Your task to perform on an android device: install app "Google Sheets" Image 0: 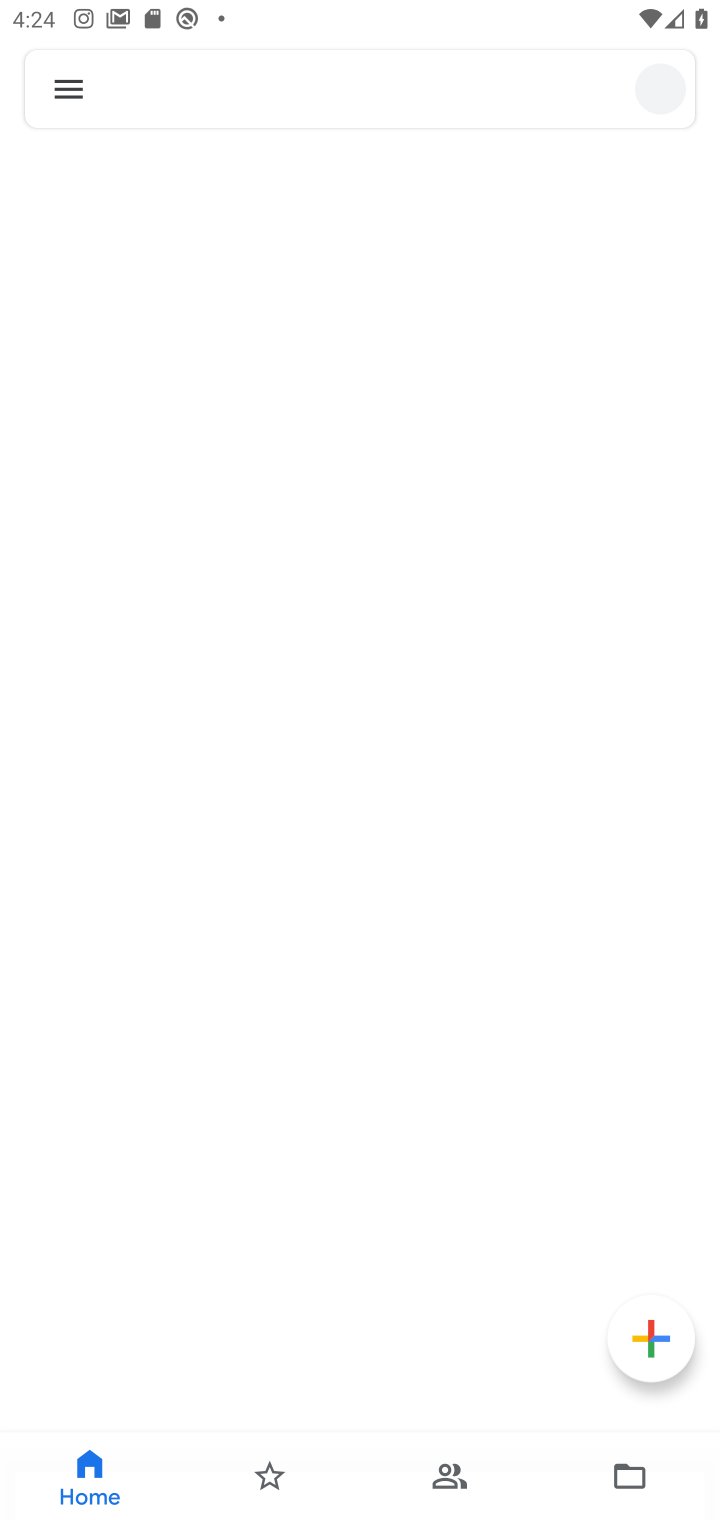
Step 0: press home button
Your task to perform on an android device: install app "Google Sheets" Image 1: 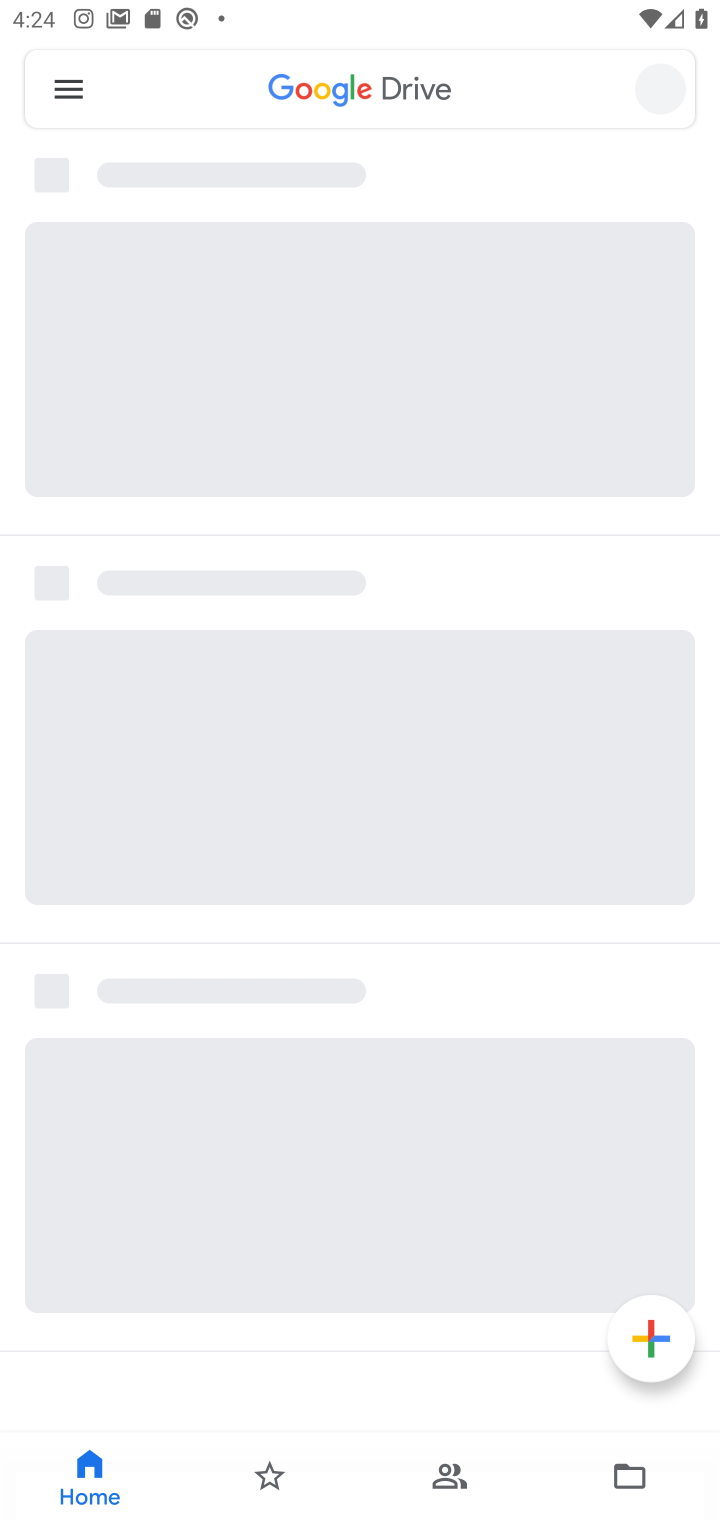
Step 1: press home button
Your task to perform on an android device: install app "Google Sheets" Image 2: 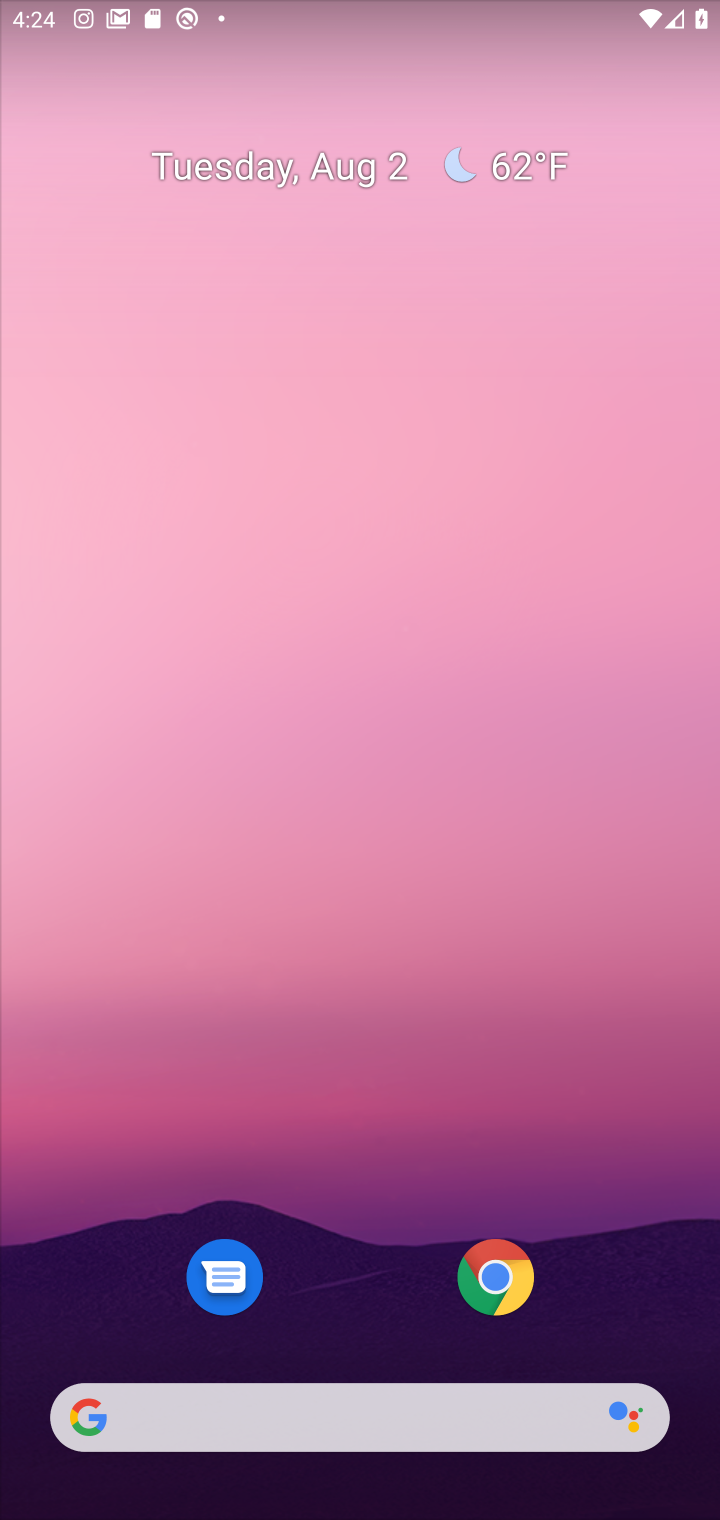
Step 2: drag from (554, 973) to (547, 2)
Your task to perform on an android device: install app "Google Sheets" Image 3: 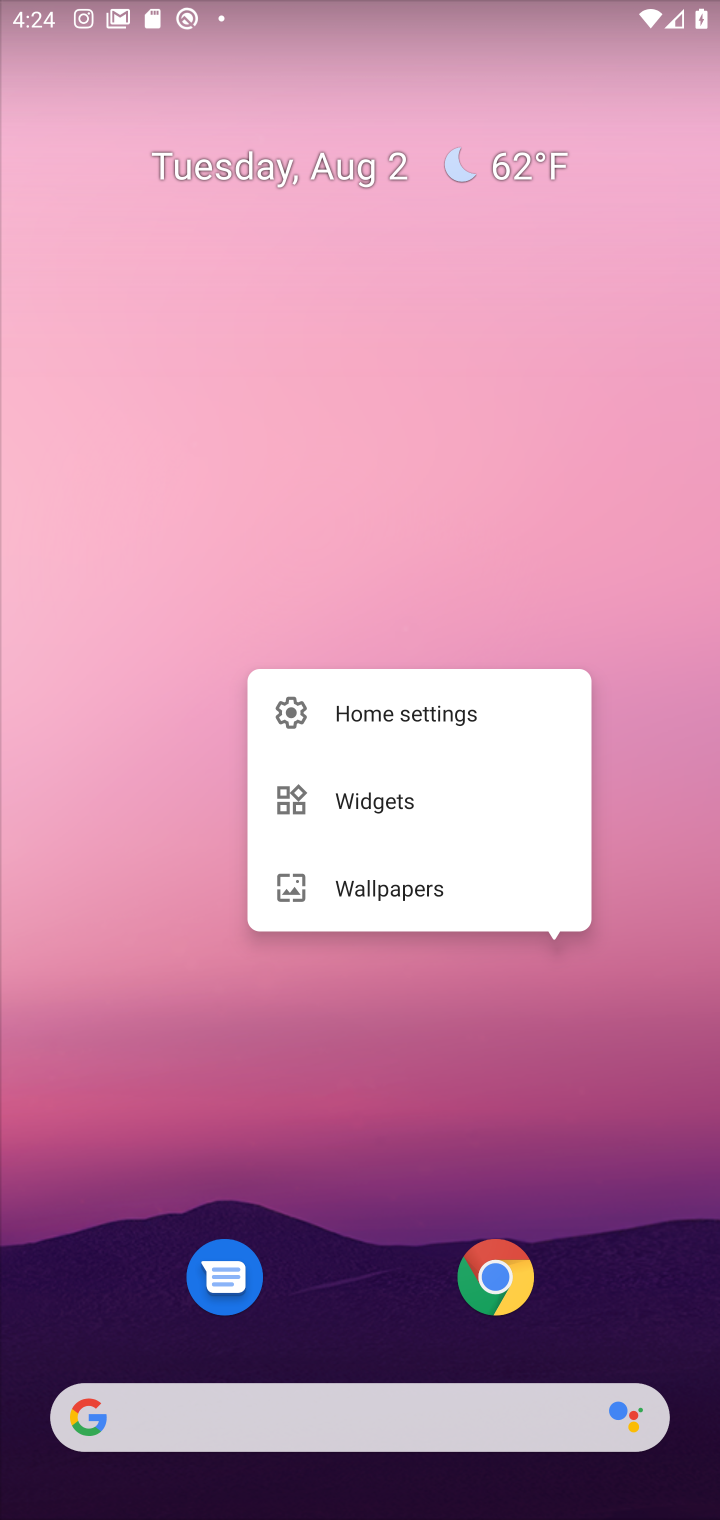
Step 3: click (483, 548)
Your task to perform on an android device: install app "Google Sheets" Image 4: 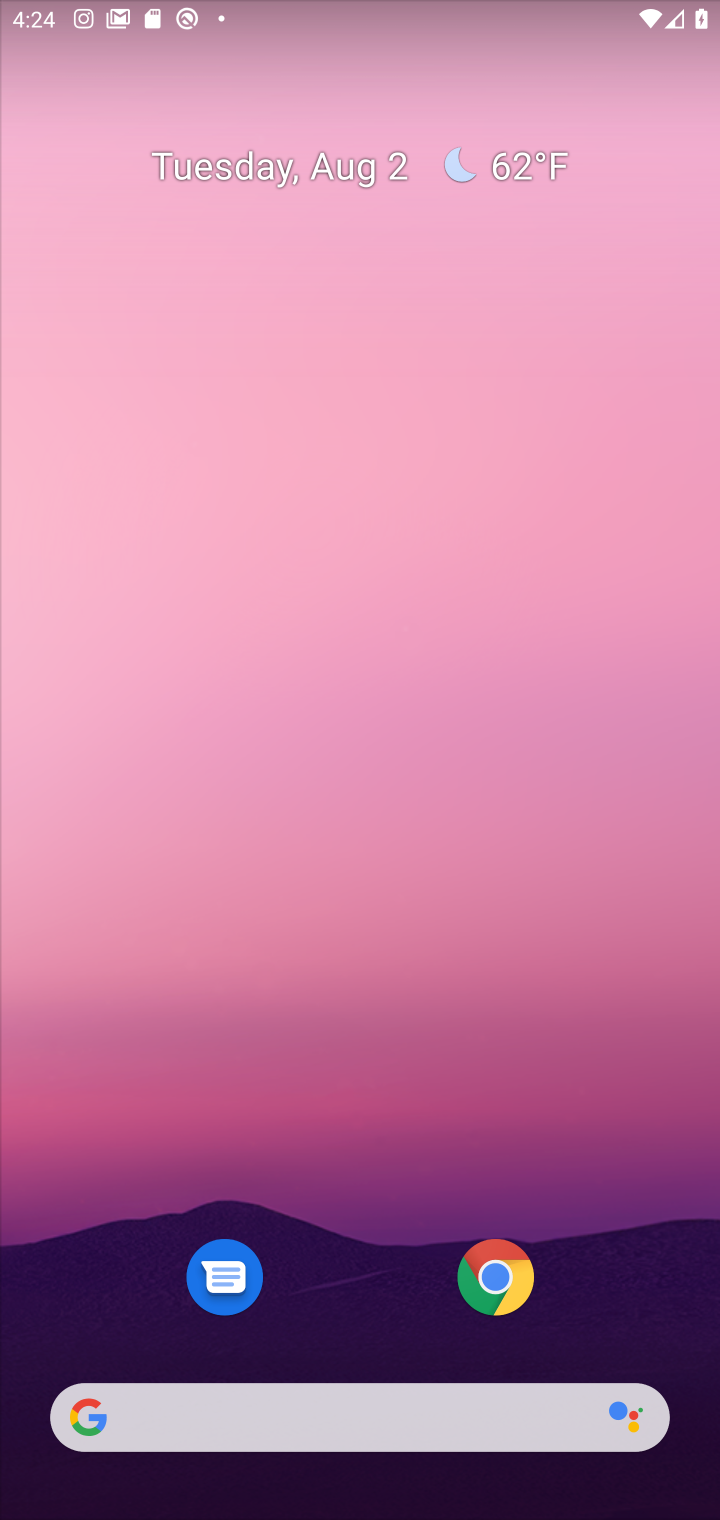
Step 4: drag from (513, 947) to (478, 0)
Your task to perform on an android device: install app "Google Sheets" Image 5: 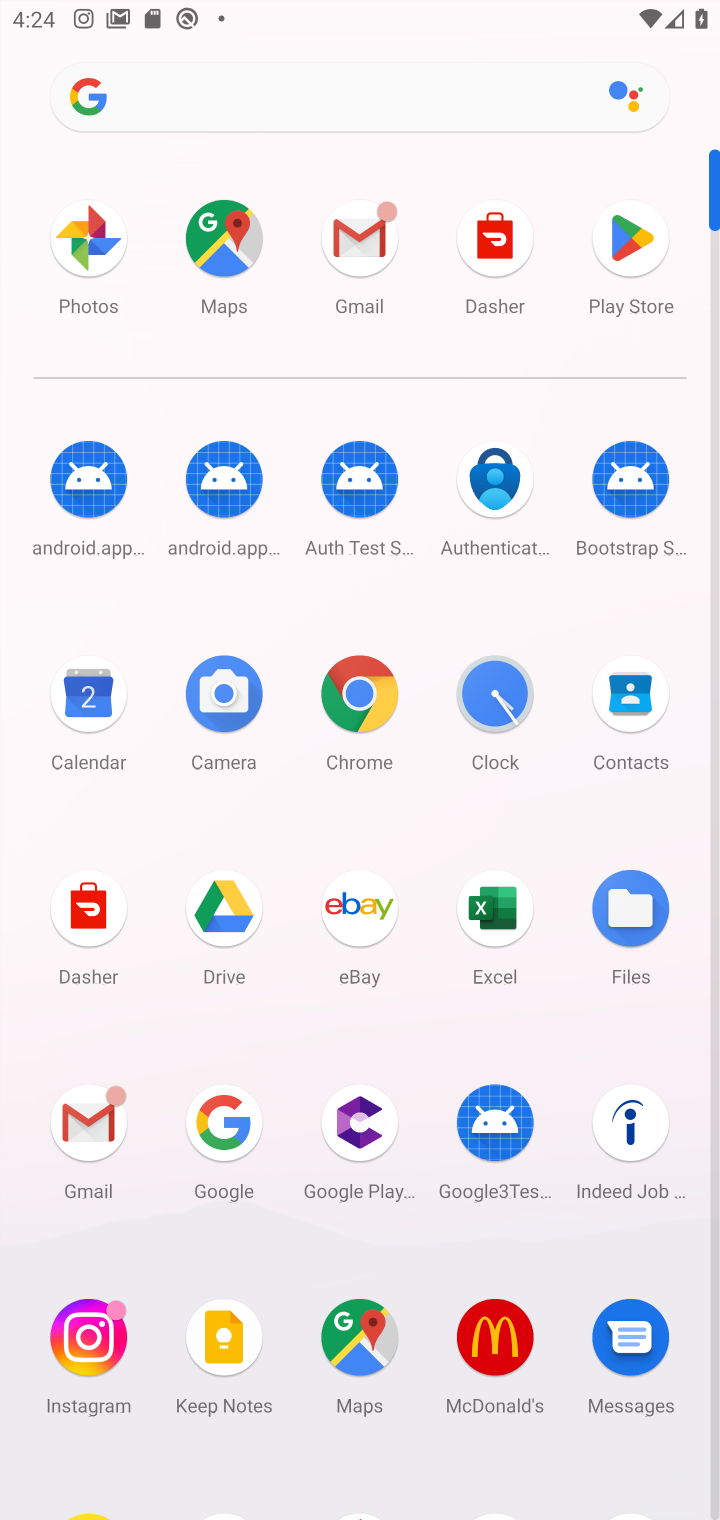
Step 5: drag from (420, 975) to (436, 387)
Your task to perform on an android device: install app "Google Sheets" Image 6: 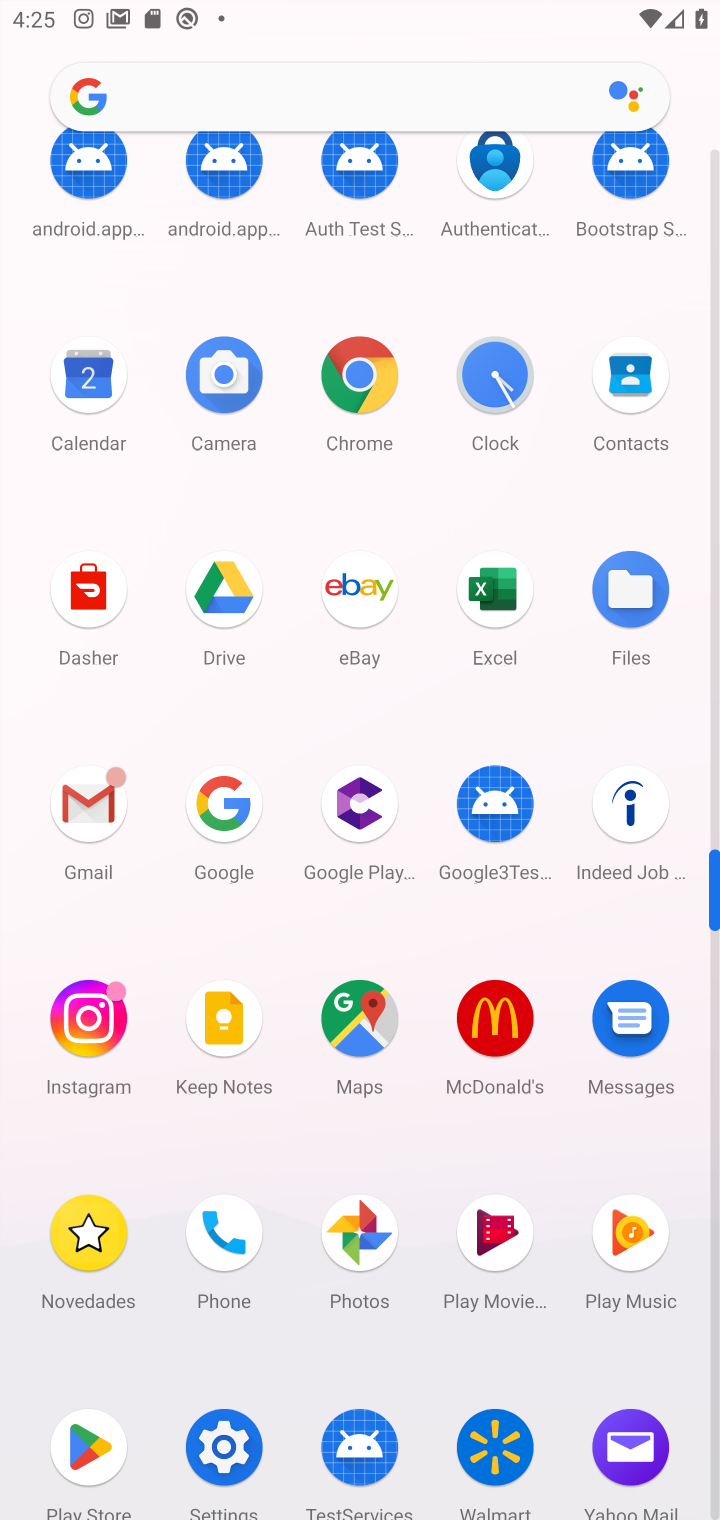
Step 6: click (66, 1430)
Your task to perform on an android device: install app "Google Sheets" Image 7: 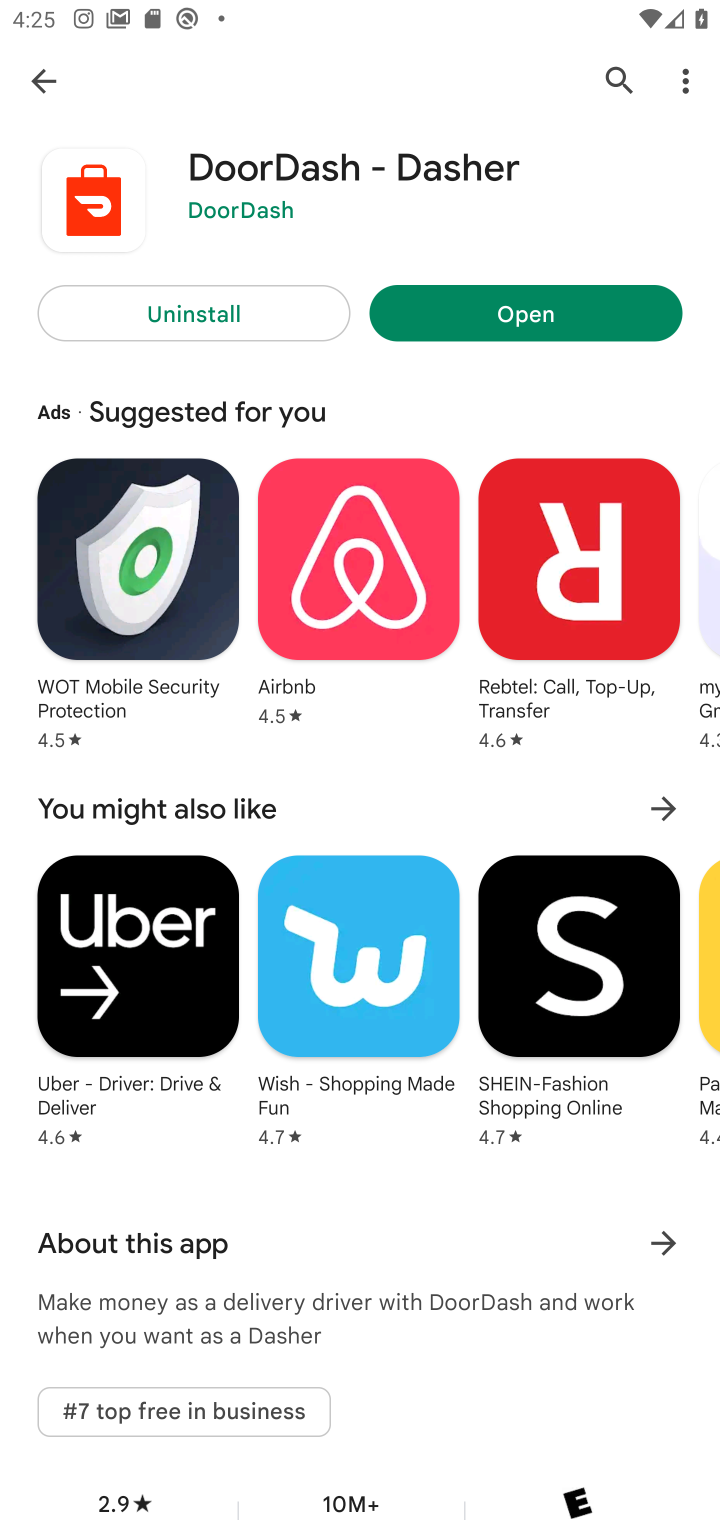
Step 7: click (632, 54)
Your task to perform on an android device: install app "Google Sheets" Image 8: 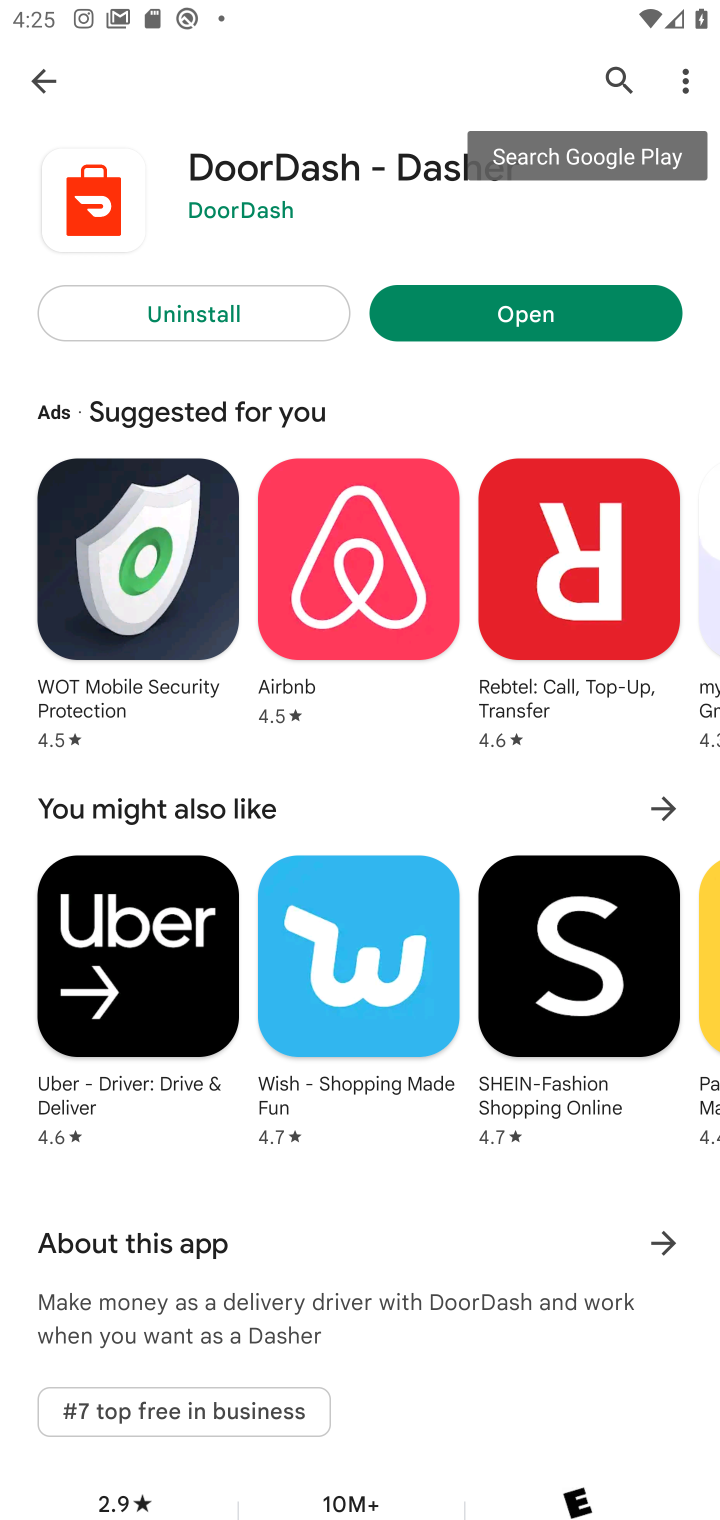
Step 8: click (612, 71)
Your task to perform on an android device: install app "Google Sheets" Image 9: 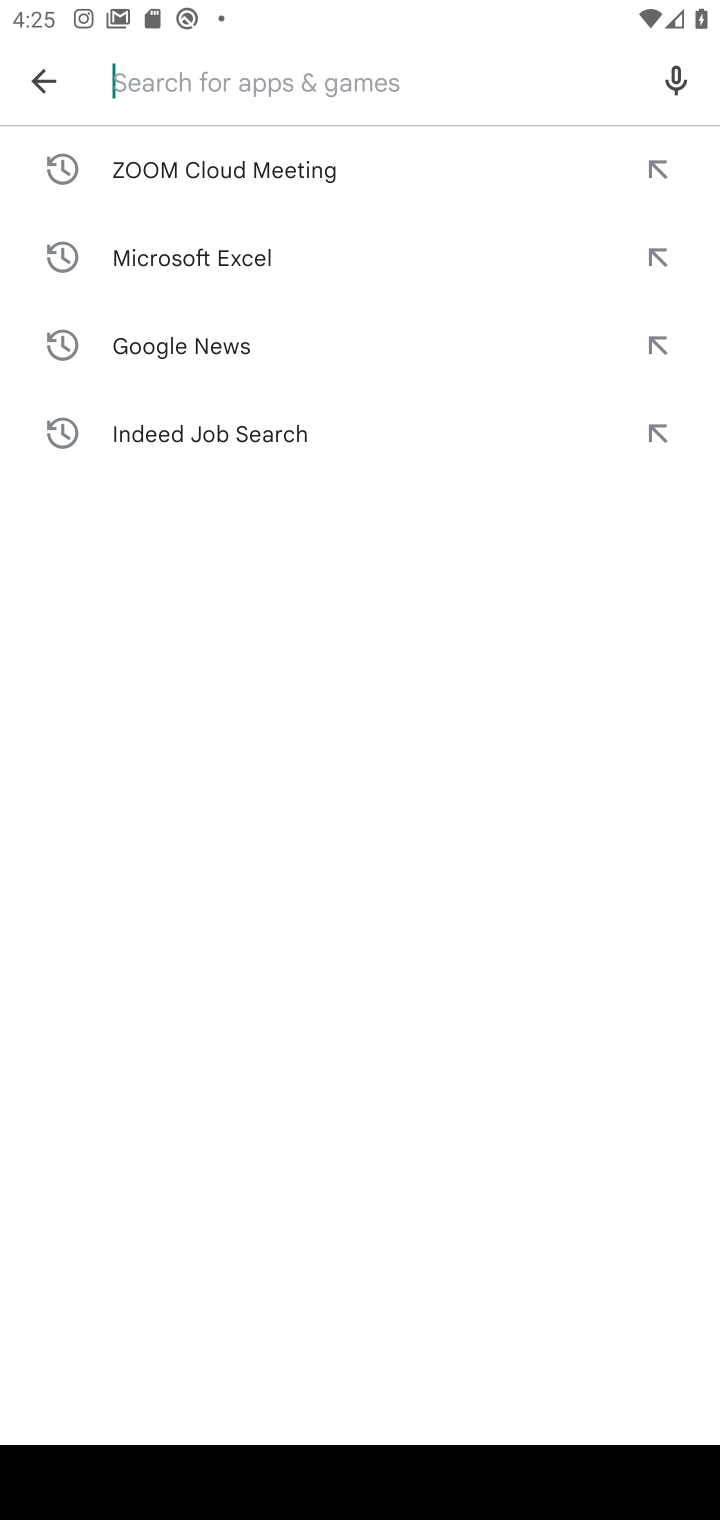
Step 9: type "Google Sheet"
Your task to perform on an android device: install app "Google Sheets" Image 10: 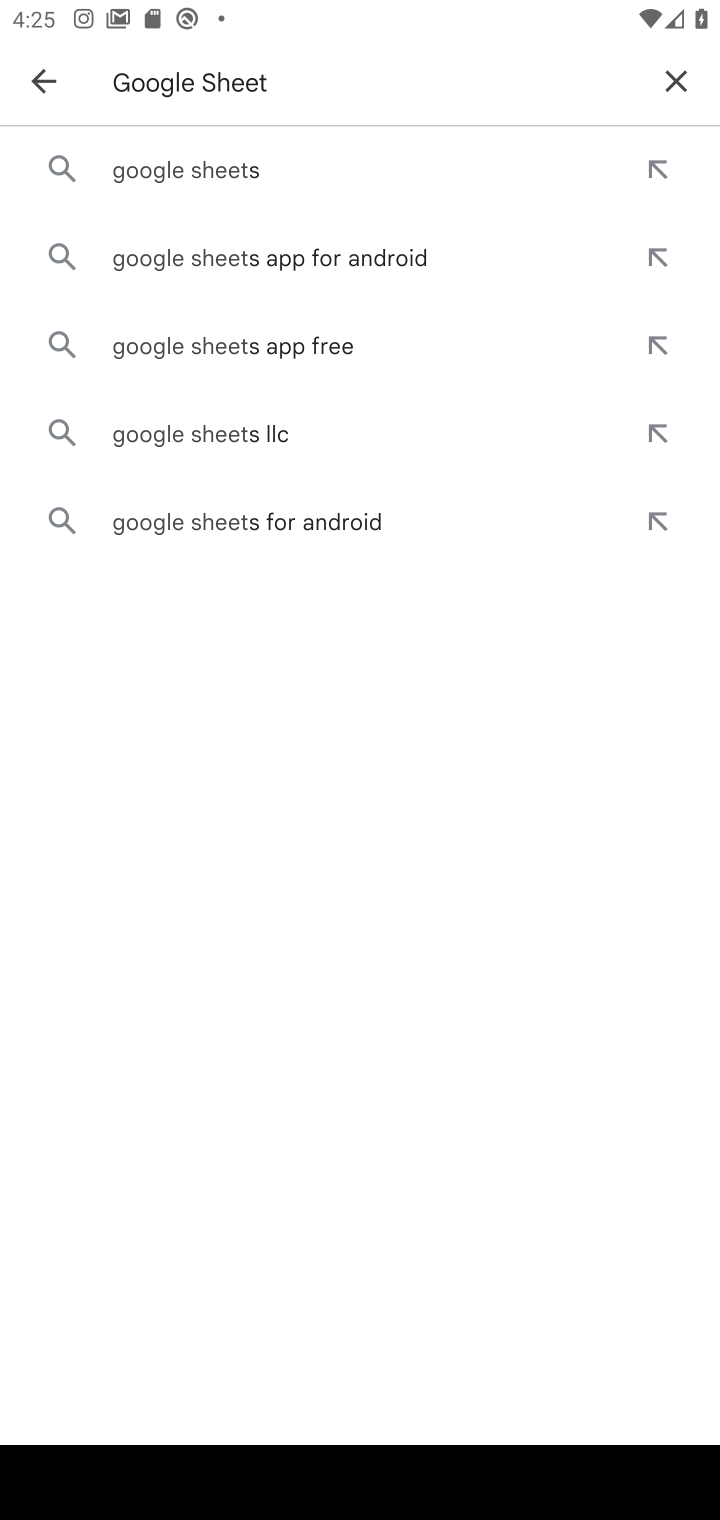
Step 10: type "s"
Your task to perform on an android device: install app "Google Sheets" Image 11: 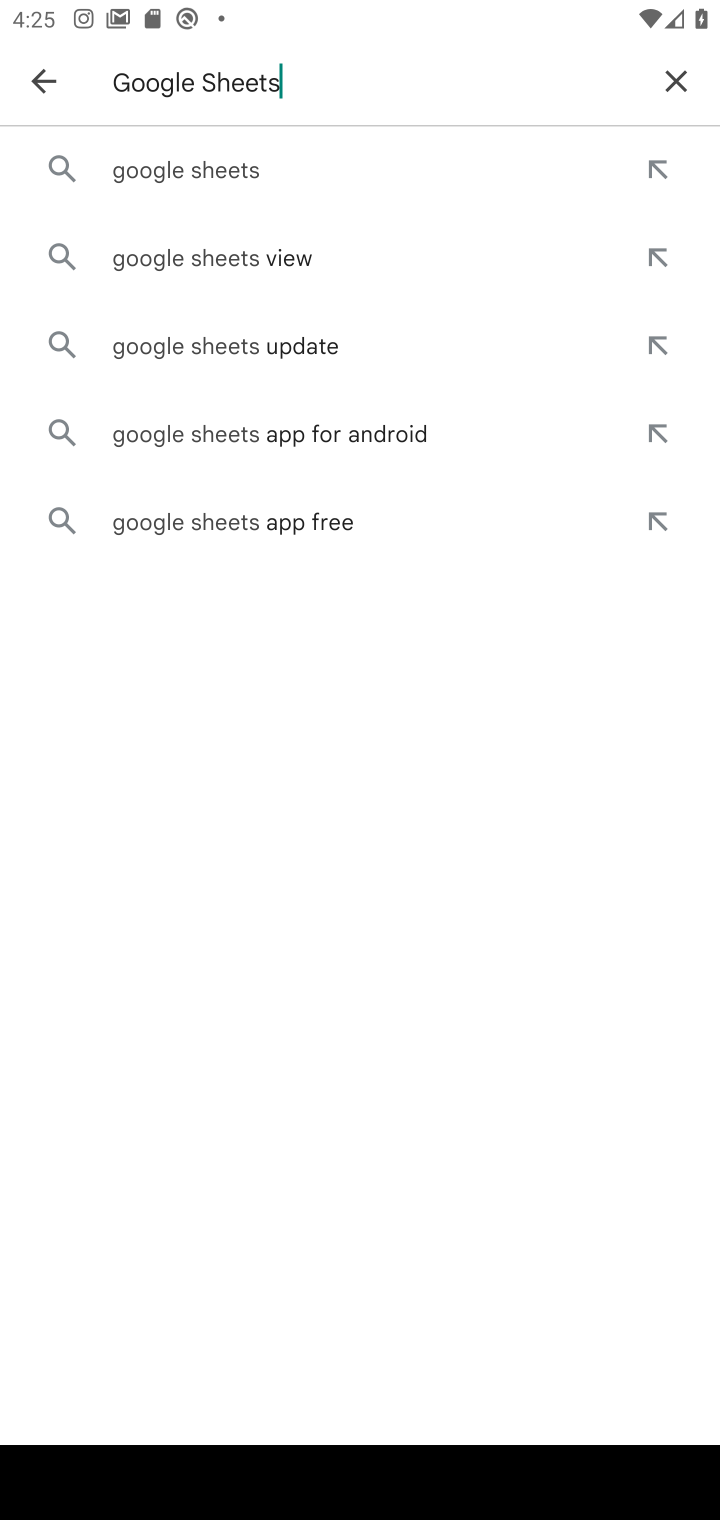
Step 11: click (285, 157)
Your task to perform on an android device: install app "Google Sheets" Image 12: 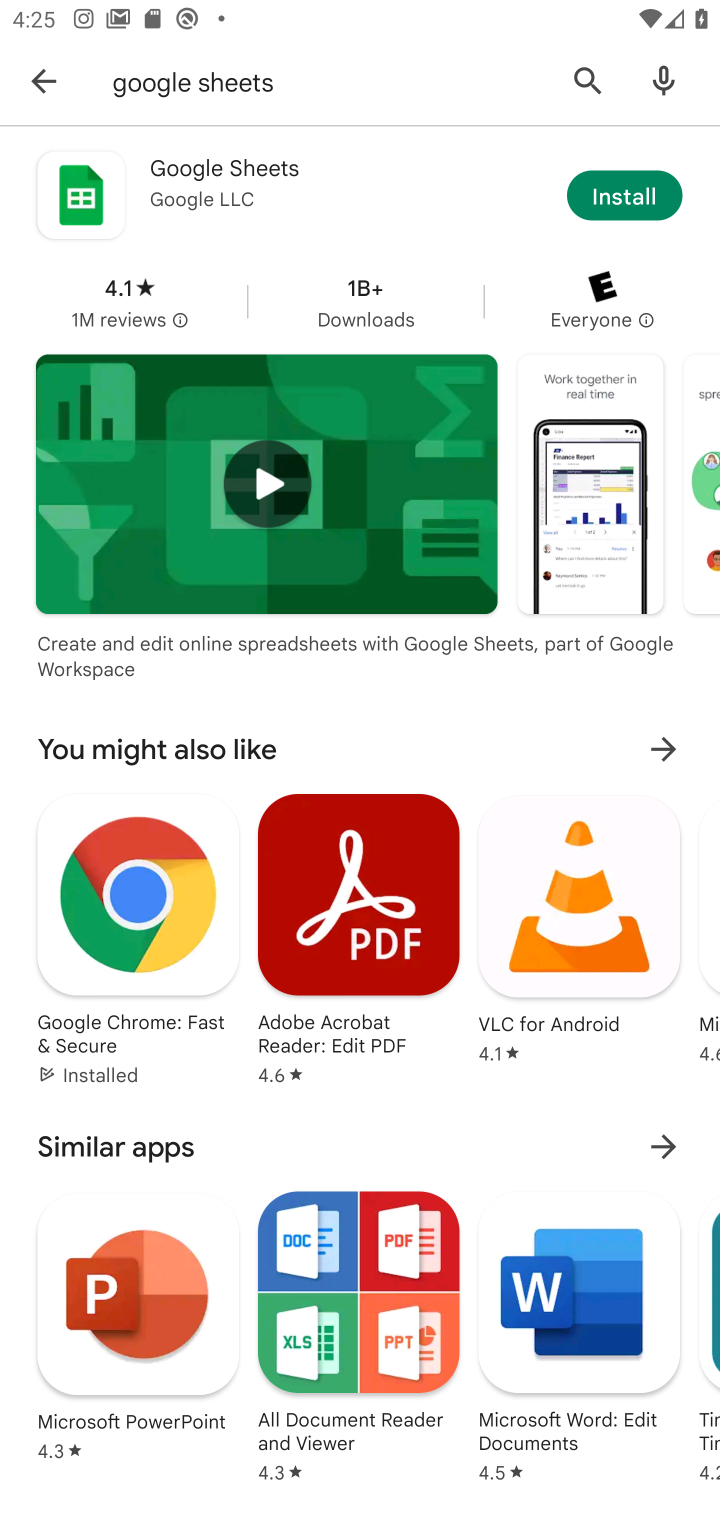
Step 12: click (608, 212)
Your task to perform on an android device: install app "Google Sheets" Image 13: 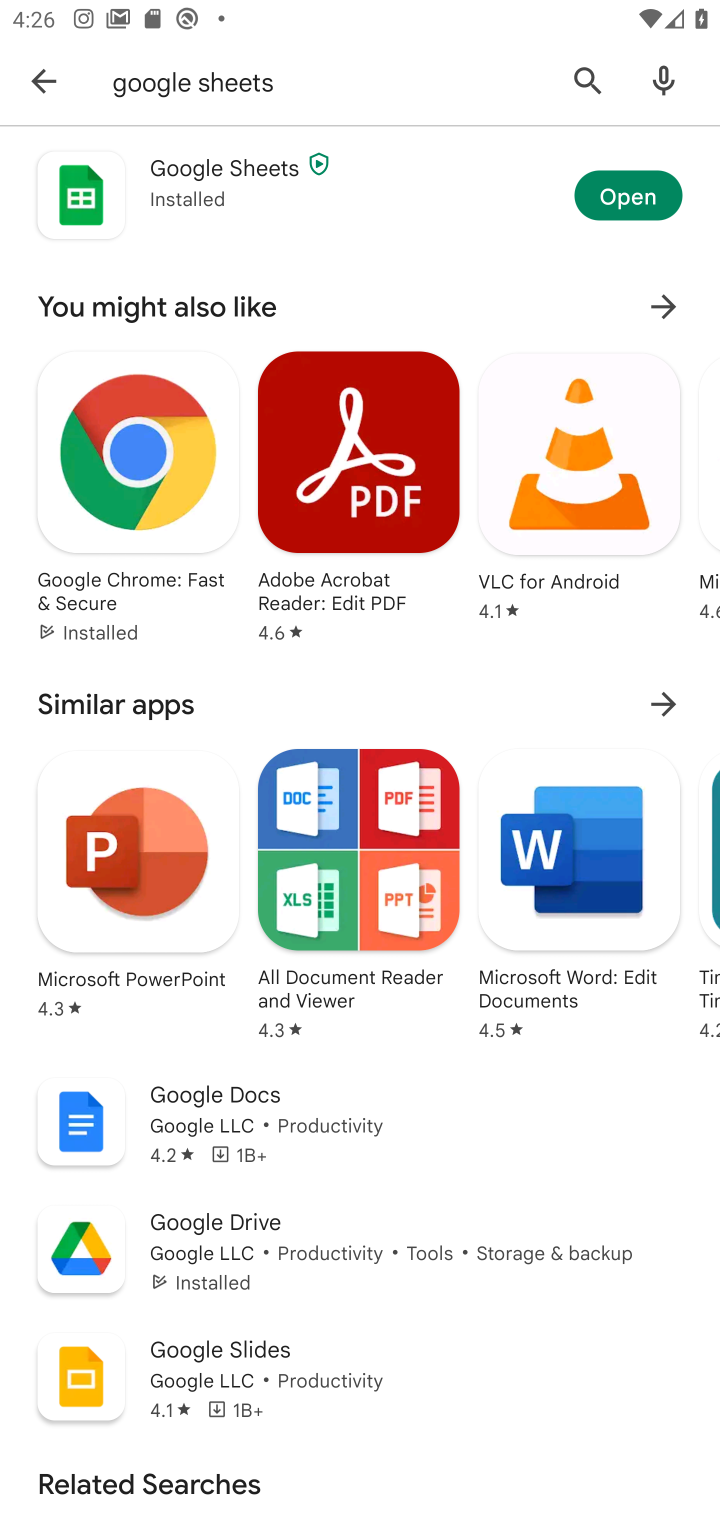
Step 13: task complete